Your task to perform on an android device: all mails in gmail Image 0: 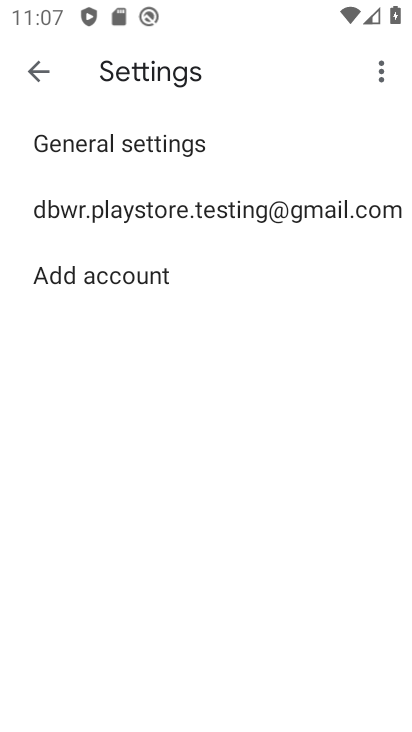
Step 0: press home button
Your task to perform on an android device: all mails in gmail Image 1: 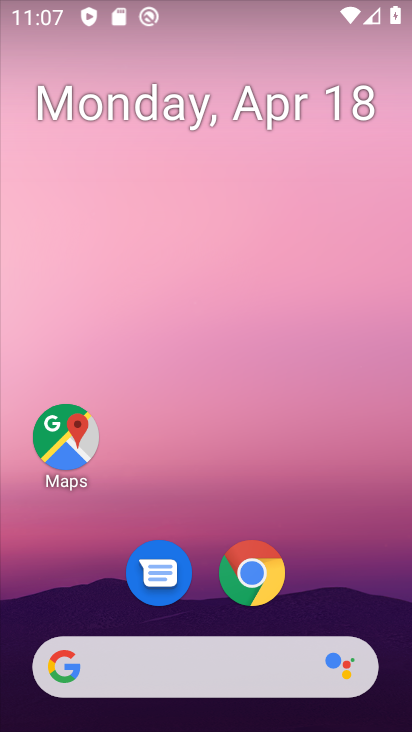
Step 1: drag from (201, 603) to (223, 52)
Your task to perform on an android device: all mails in gmail Image 2: 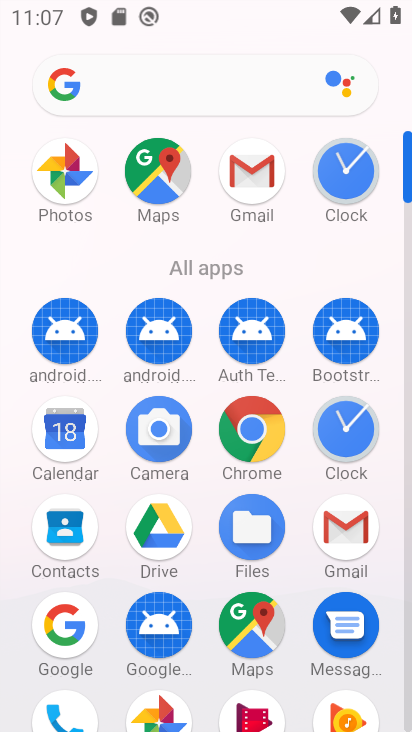
Step 2: click (250, 194)
Your task to perform on an android device: all mails in gmail Image 3: 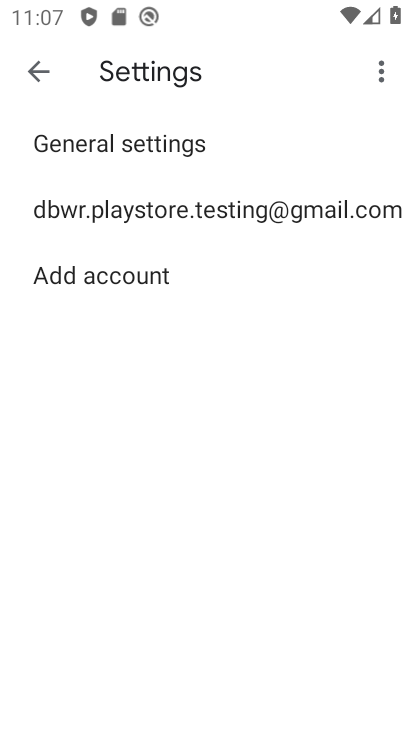
Step 3: click (33, 78)
Your task to perform on an android device: all mails in gmail Image 4: 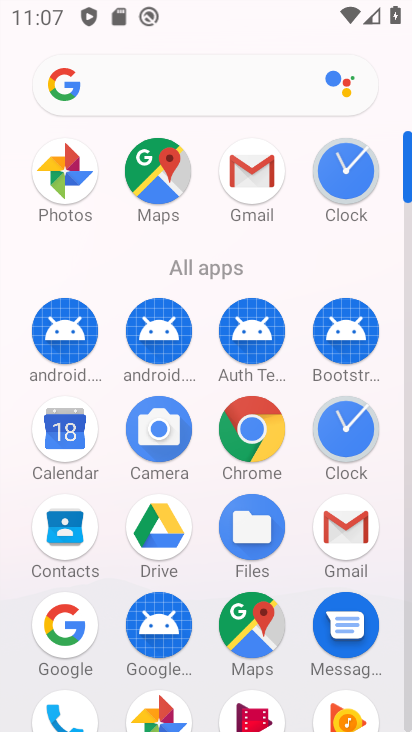
Step 4: click (254, 180)
Your task to perform on an android device: all mails in gmail Image 5: 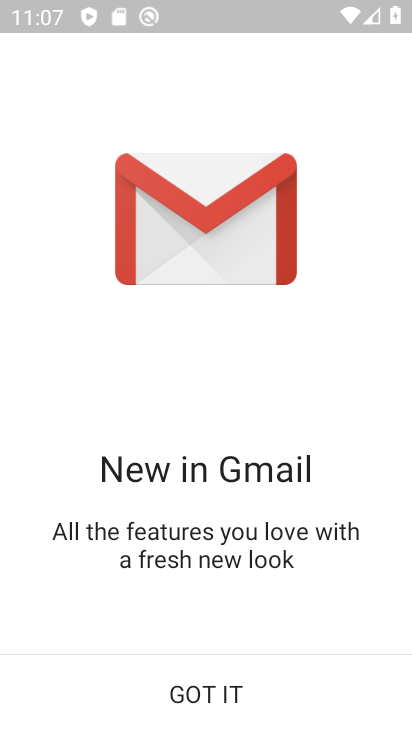
Step 5: click (209, 693)
Your task to perform on an android device: all mails in gmail Image 6: 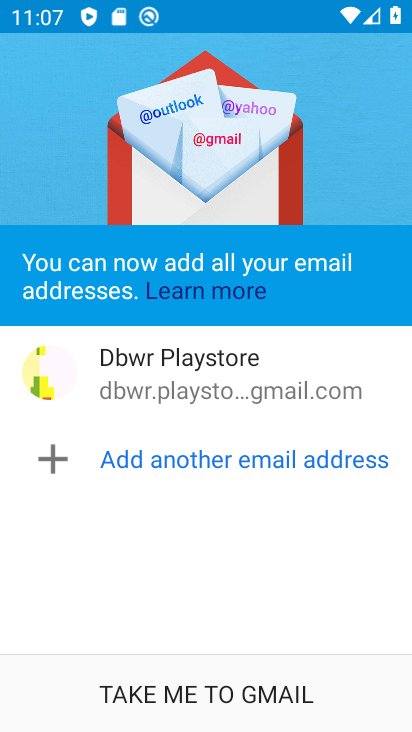
Step 6: click (209, 693)
Your task to perform on an android device: all mails in gmail Image 7: 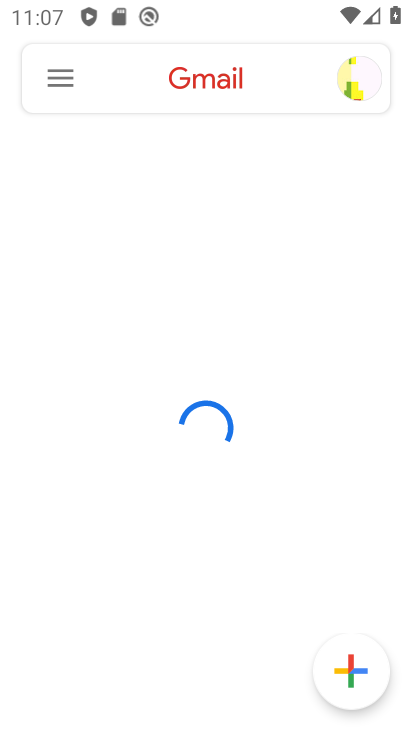
Step 7: click (57, 81)
Your task to perform on an android device: all mails in gmail Image 8: 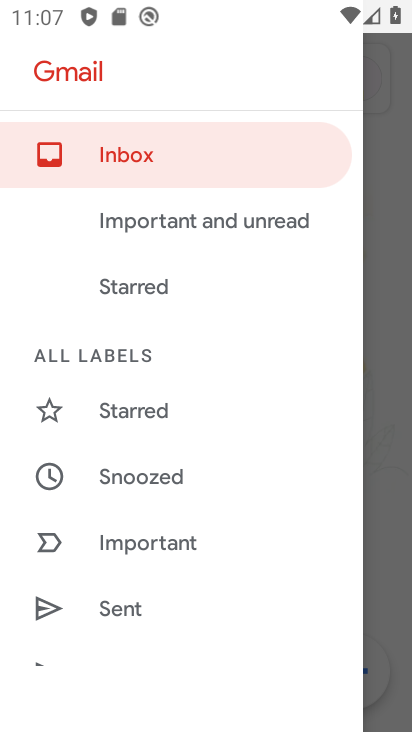
Step 8: click (145, 141)
Your task to perform on an android device: all mails in gmail Image 9: 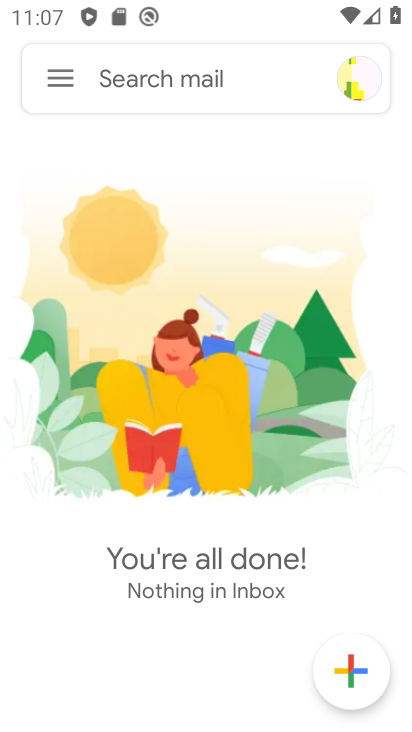
Step 9: task complete